Your task to perform on an android device: What's on the menu at McDonalds? Image 0: 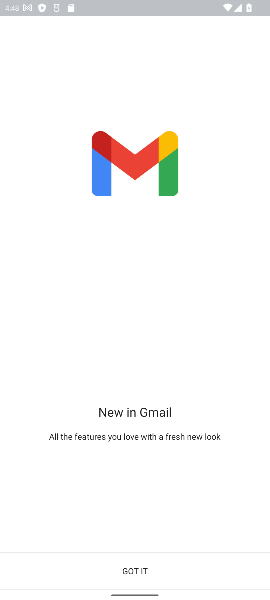
Step 0: press home button
Your task to perform on an android device: What's on the menu at McDonalds? Image 1: 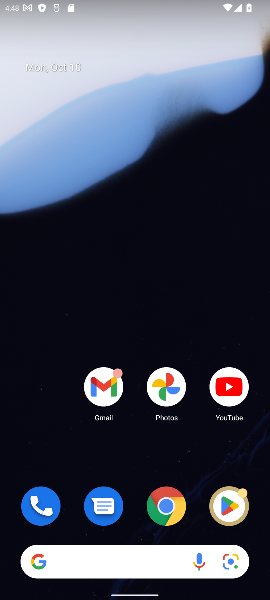
Step 1: drag from (113, 568) to (134, 165)
Your task to perform on an android device: What's on the menu at McDonalds? Image 2: 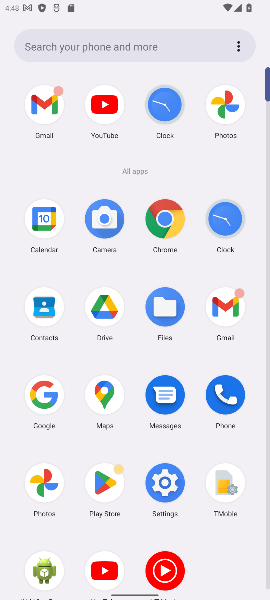
Step 2: click (39, 395)
Your task to perform on an android device: What's on the menu at McDonalds? Image 3: 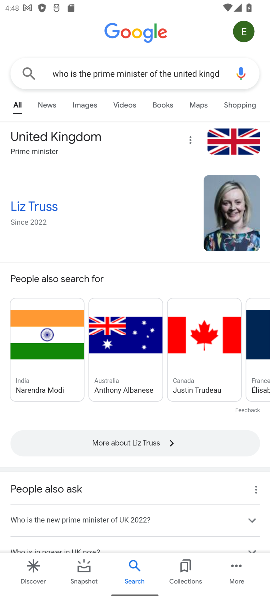
Step 3: click (179, 79)
Your task to perform on an android device: What's on the menu at McDonalds? Image 4: 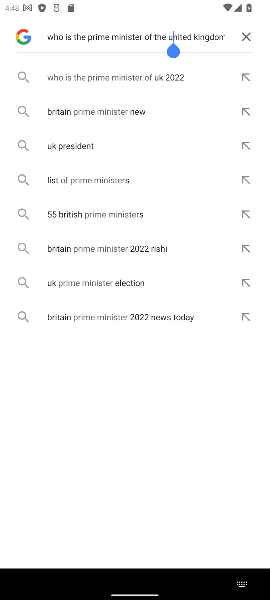
Step 4: click (242, 40)
Your task to perform on an android device: What's on the menu at McDonalds? Image 5: 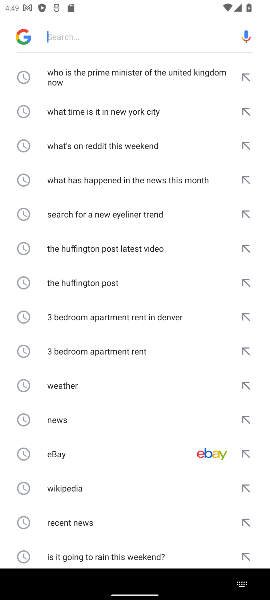
Step 5: type "What's on the menu at McDonalds?"
Your task to perform on an android device: What's on the menu at McDonalds? Image 6: 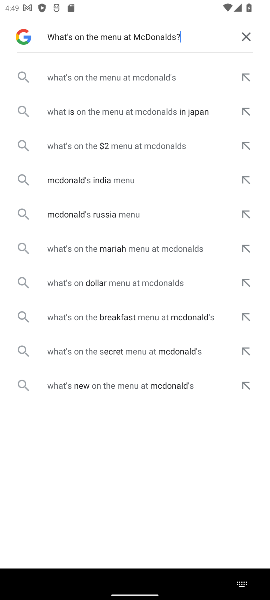
Step 6: click (129, 79)
Your task to perform on an android device: What's on the menu at McDonalds? Image 7: 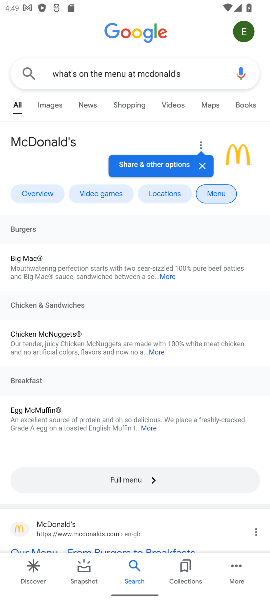
Step 7: task complete